Your task to perform on an android device: open chrome and create a bookmark for the current page Image 0: 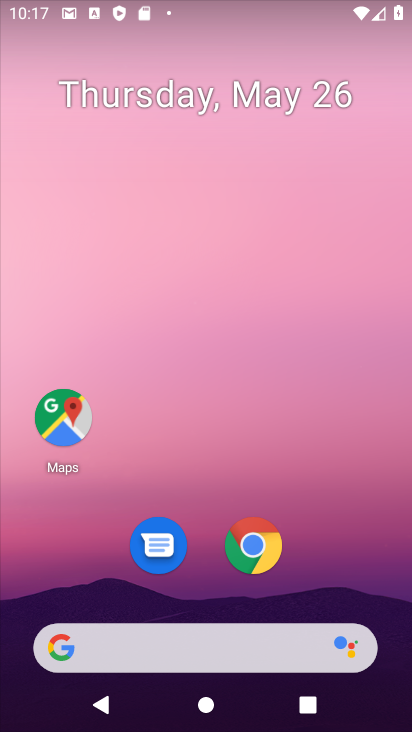
Step 0: press home button
Your task to perform on an android device: open chrome and create a bookmark for the current page Image 1: 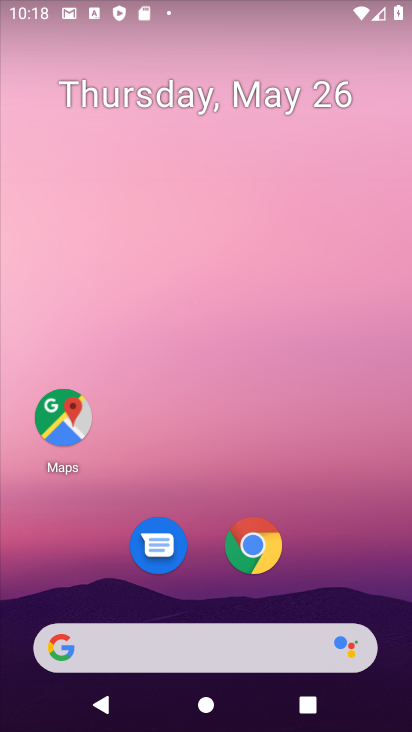
Step 1: click (250, 549)
Your task to perform on an android device: open chrome and create a bookmark for the current page Image 2: 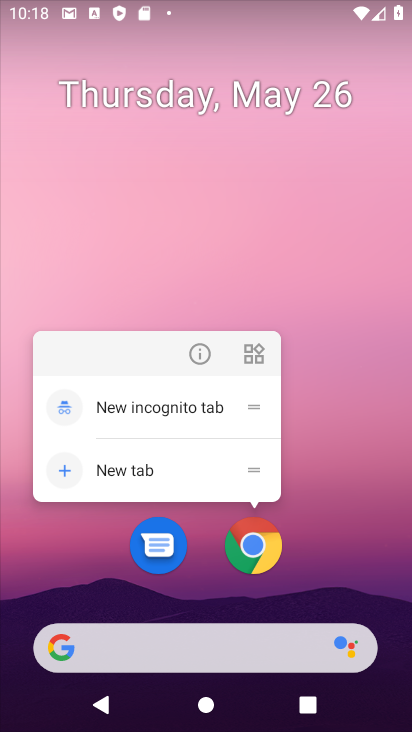
Step 2: click (250, 549)
Your task to perform on an android device: open chrome and create a bookmark for the current page Image 3: 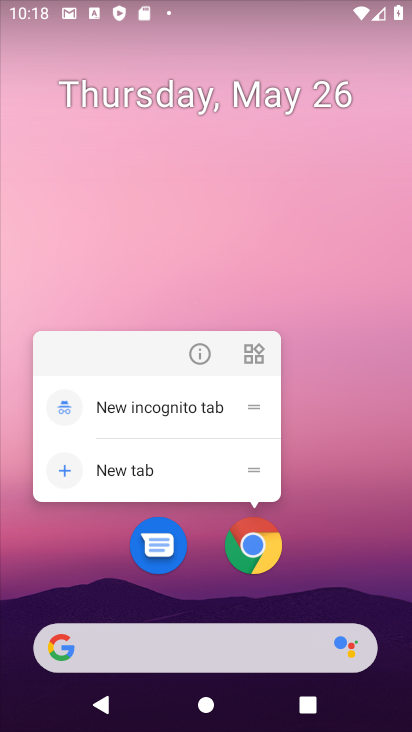
Step 3: click (319, 566)
Your task to perform on an android device: open chrome and create a bookmark for the current page Image 4: 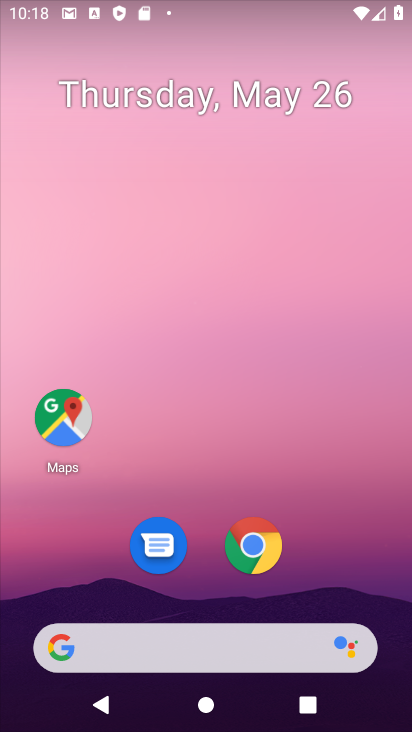
Step 4: drag from (333, 613) to (327, 219)
Your task to perform on an android device: open chrome and create a bookmark for the current page Image 5: 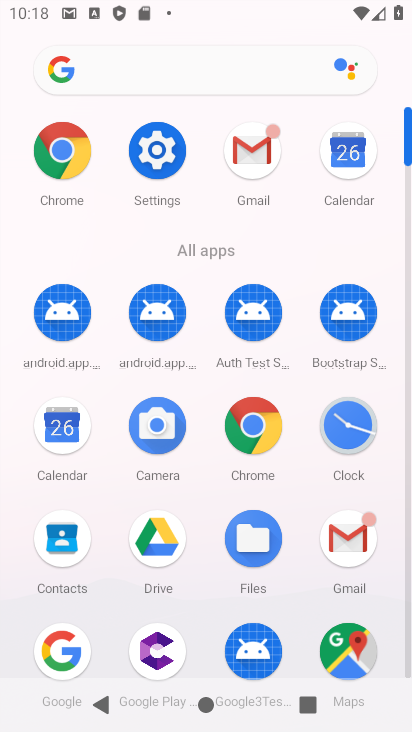
Step 5: click (261, 441)
Your task to perform on an android device: open chrome and create a bookmark for the current page Image 6: 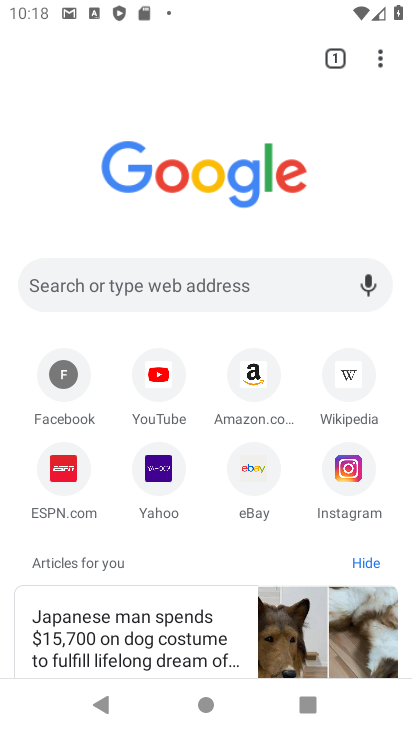
Step 6: task complete